Your task to perform on an android device: Open settings on Google Maps Image 0: 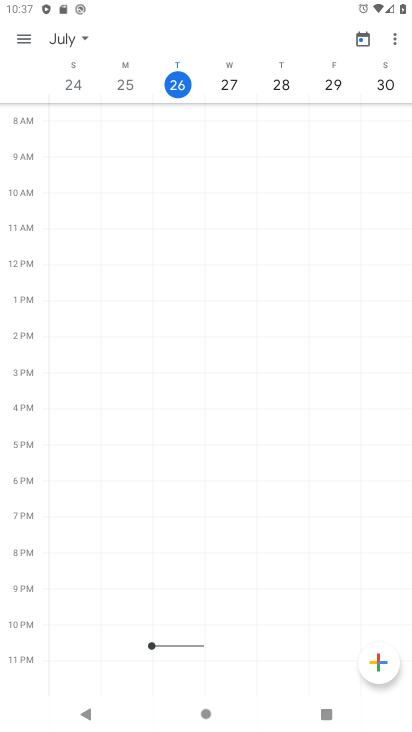
Step 0: press home button
Your task to perform on an android device: Open settings on Google Maps Image 1: 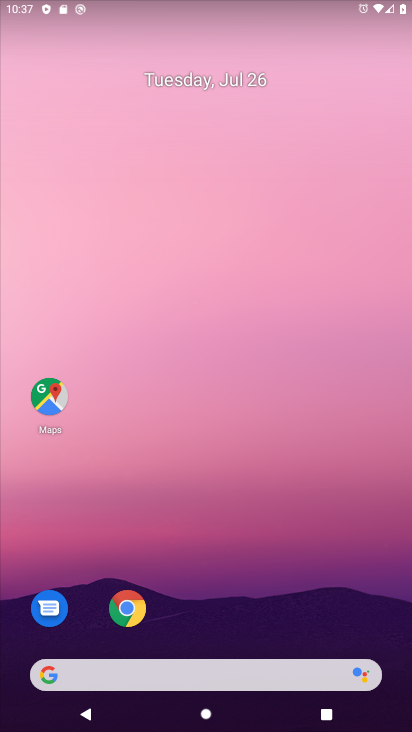
Step 1: drag from (240, 723) to (240, 99)
Your task to perform on an android device: Open settings on Google Maps Image 2: 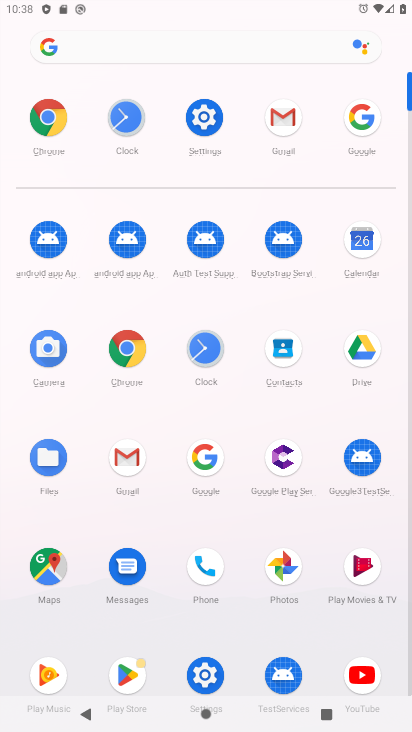
Step 2: click (52, 564)
Your task to perform on an android device: Open settings on Google Maps Image 3: 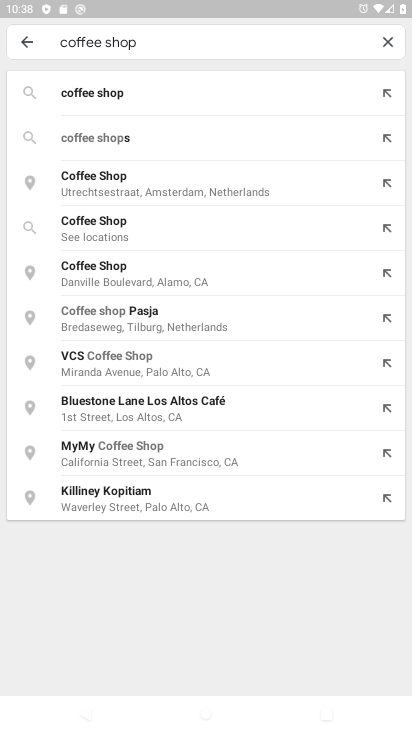
Step 3: click (22, 41)
Your task to perform on an android device: Open settings on Google Maps Image 4: 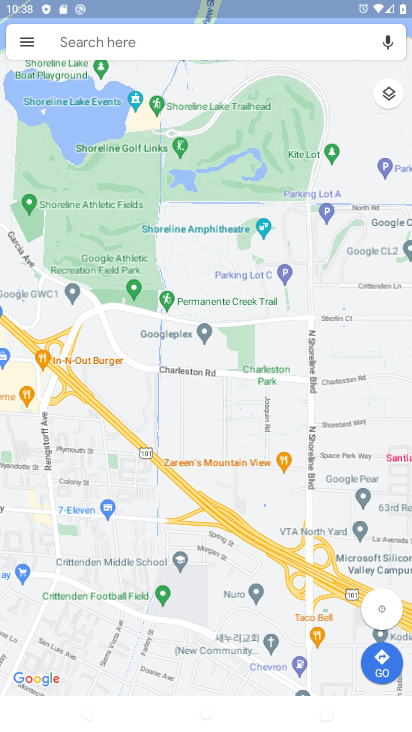
Step 4: click (30, 45)
Your task to perform on an android device: Open settings on Google Maps Image 5: 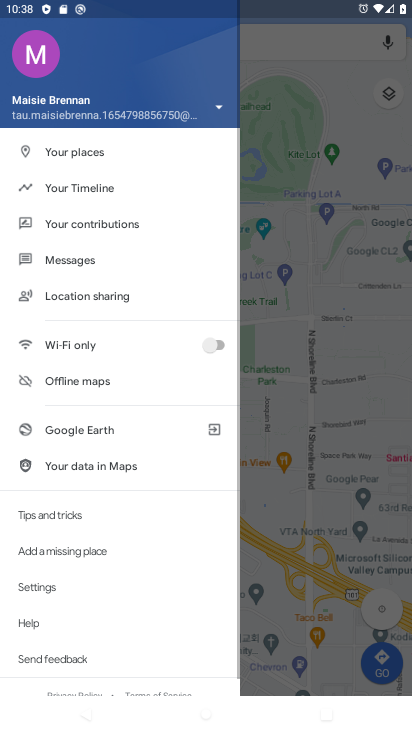
Step 5: click (42, 589)
Your task to perform on an android device: Open settings on Google Maps Image 6: 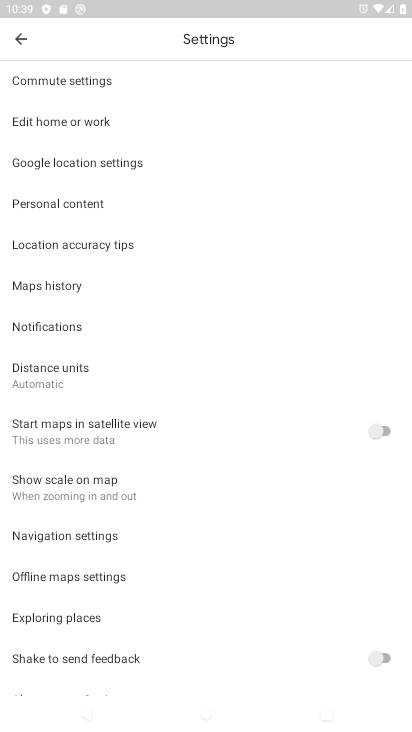
Step 6: task complete